Your task to perform on an android device: Open privacy settings Image 0: 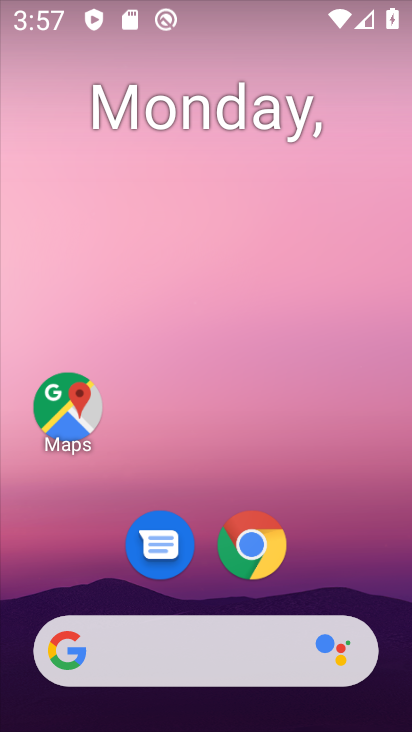
Step 0: drag from (203, 589) to (291, 84)
Your task to perform on an android device: Open privacy settings Image 1: 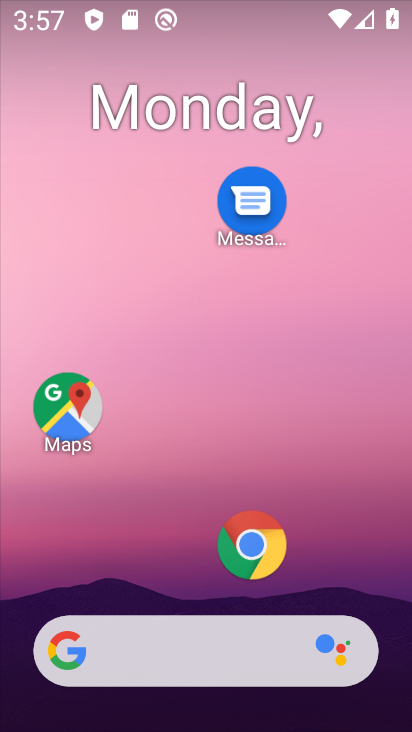
Step 1: drag from (310, 580) to (359, 21)
Your task to perform on an android device: Open privacy settings Image 2: 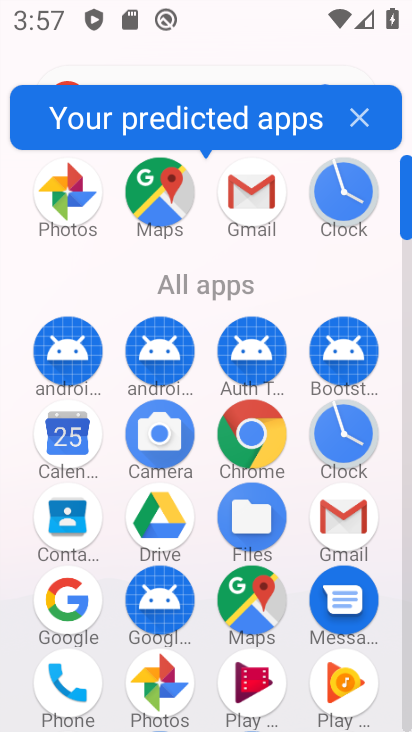
Step 2: drag from (210, 501) to (216, 159)
Your task to perform on an android device: Open privacy settings Image 3: 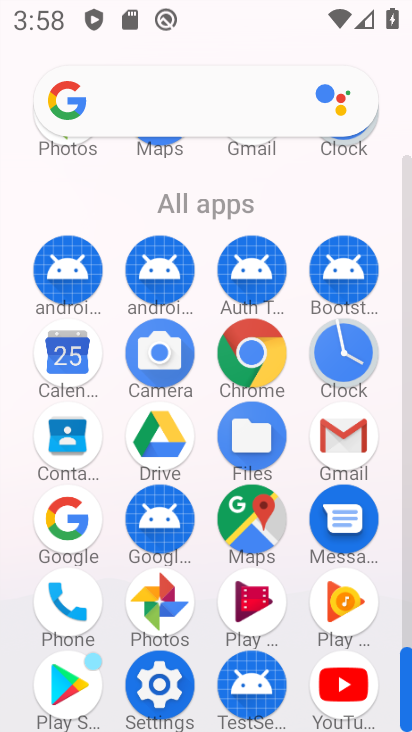
Step 3: click (156, 677)
Your task to perform on an android device: Open privacy settings Image 4: 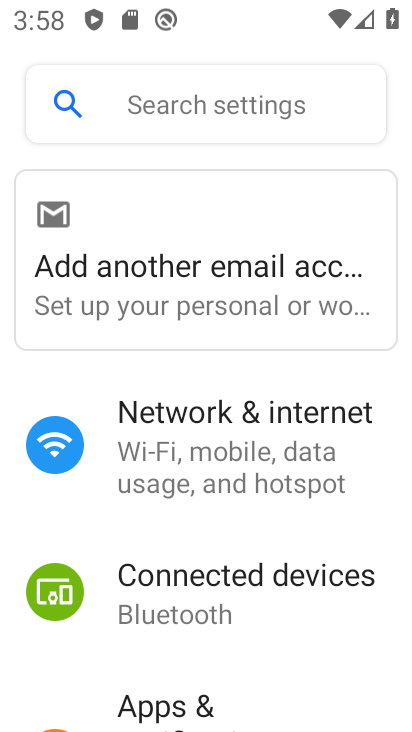
Step 4: drag from (242, 613) to (301, 157)
Your task to perform on an android device: Open privacy settings Image 5: 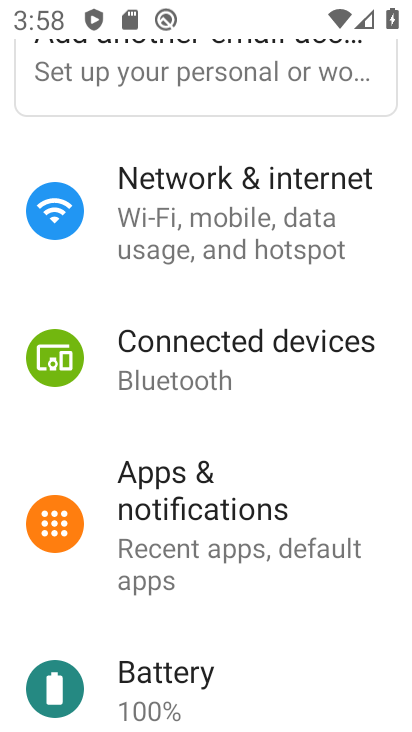
Step 5: drag from (255, 273) to (261, 167)
Your task to perform on an android device: Open privacy settings Image 6: 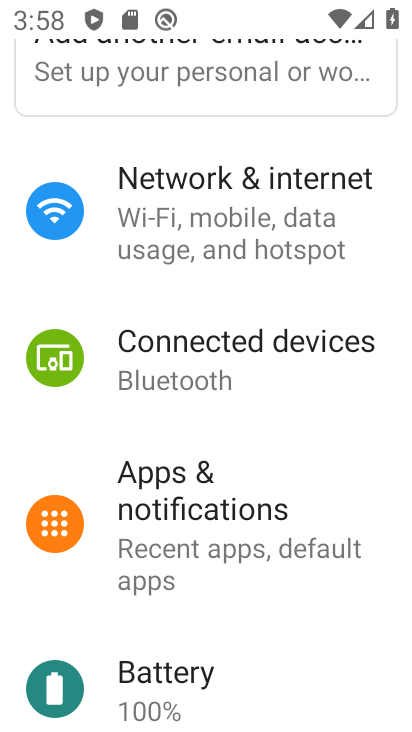
Step 6: drag from (228, 681) to (256, 120)
Your task to perform on an android device: Open privacy settings Image 7: 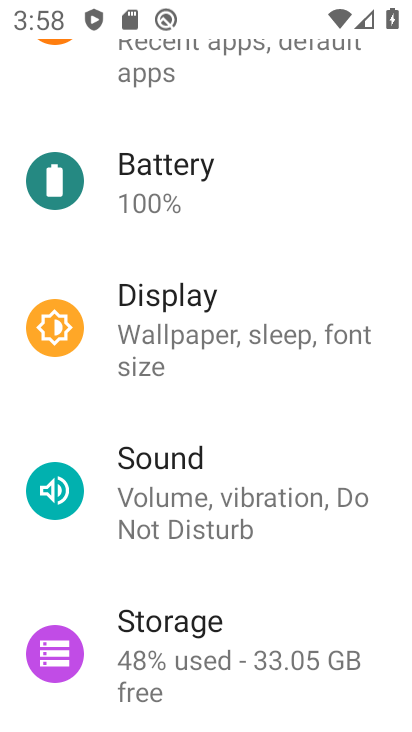
Step 7: drag from (212, 684) to (235, 62)
Your task to perform on an android device: Open privacy settings Image 8: 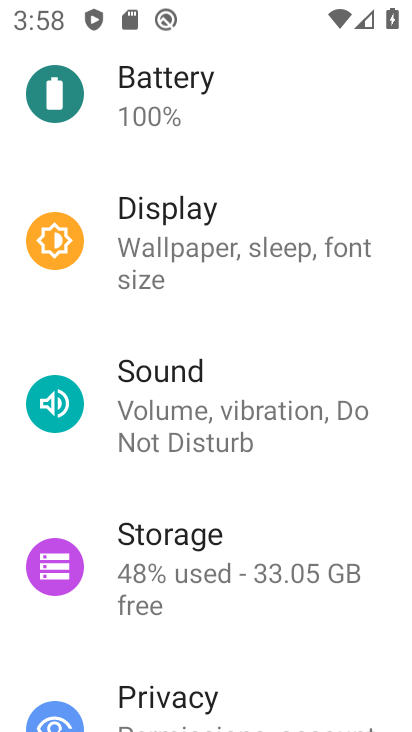
Step 8: click (231, 702)
Your task to perform on an android device: Open privacy settings Image 9: 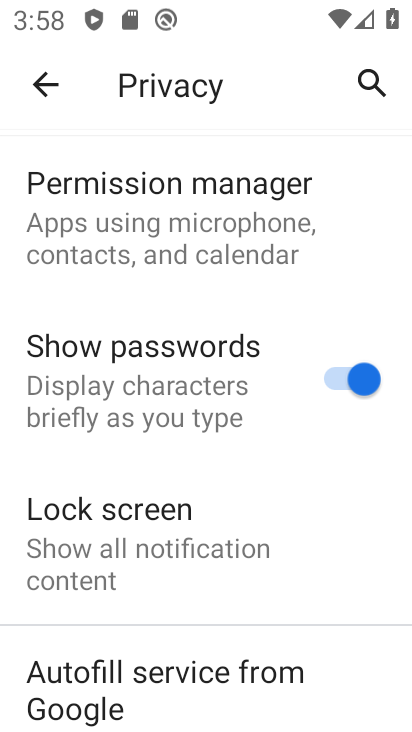
Step 9: drag from (198, 653) to (259, 80)
Your task to perform on an android device: Open privacy settings Image 10: 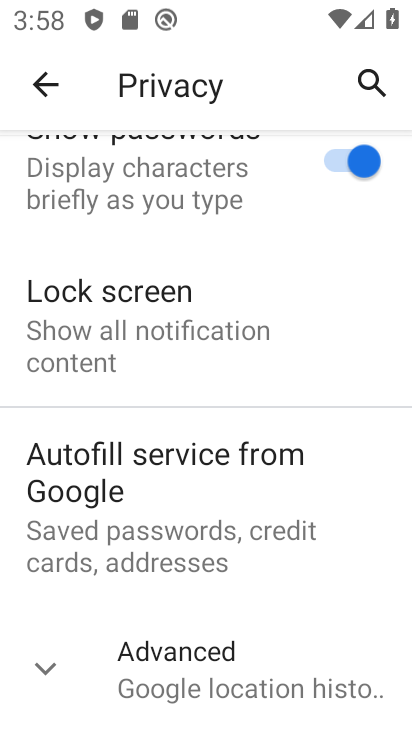
Step 10: click (45, 660)
Your task to perform on an android device: Open privacy settings Image 11: 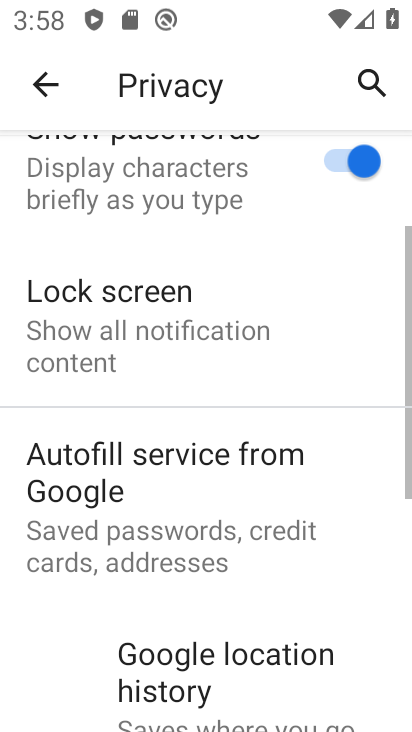
Step 11: task complete